Your task to perform on an android device: Go to CNN.com Image 0: 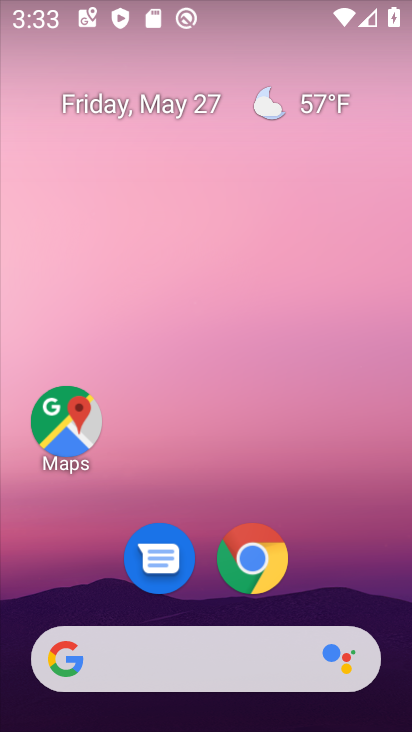
Step 0: click (203, 674)
Your task to perform on an android device: Go to CNN.com Image 1: 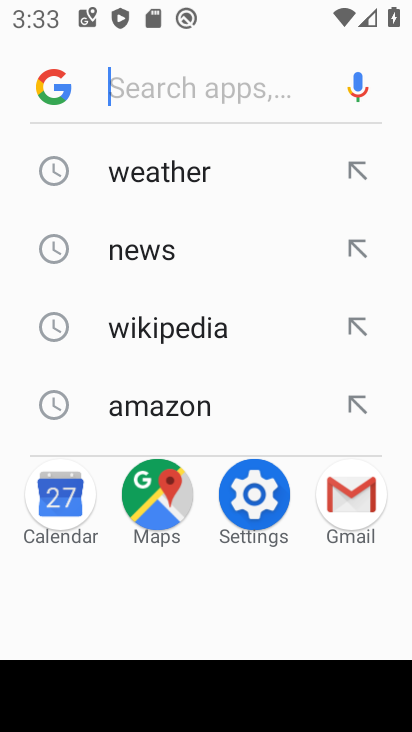
Step 1: type "cnn"
Your task to perform on an android device: Go to CNN.com Image 2: 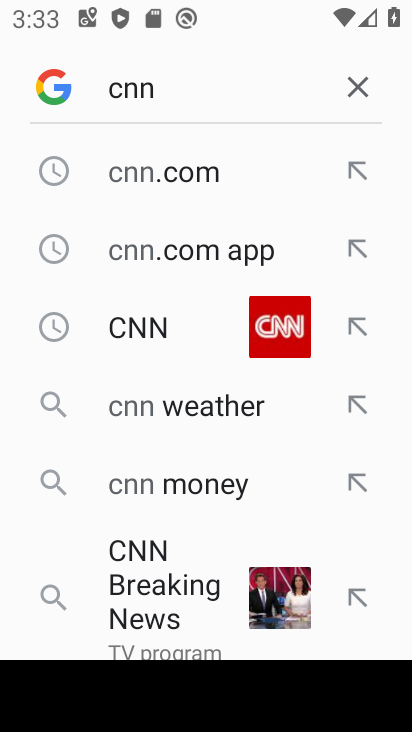
Step 2: click (183, 184)
Your task to perform on an android device: Go to CNN.com Image 3: 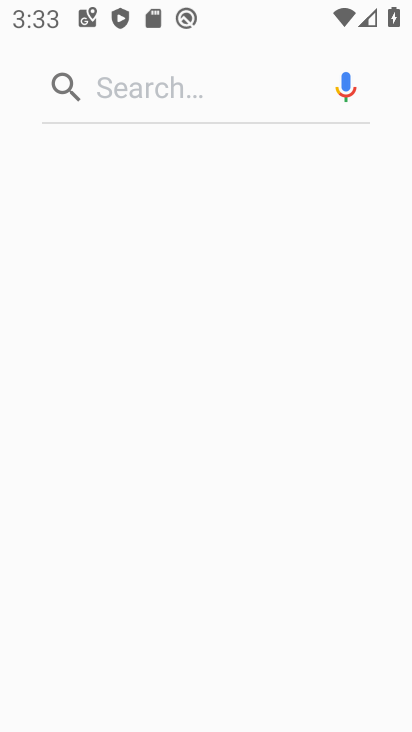
Step 3: task complete